Your task to perform on an android device: Go to Maps Image 0: 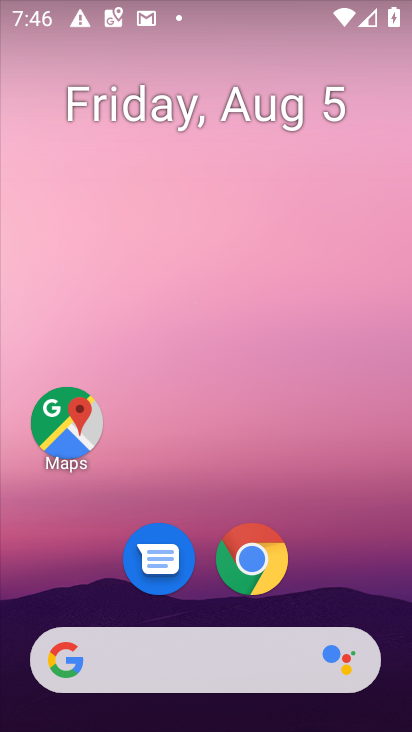
Step 0: click (65, 409)
Your task to perform on an android device: Go to Maps Image 1: 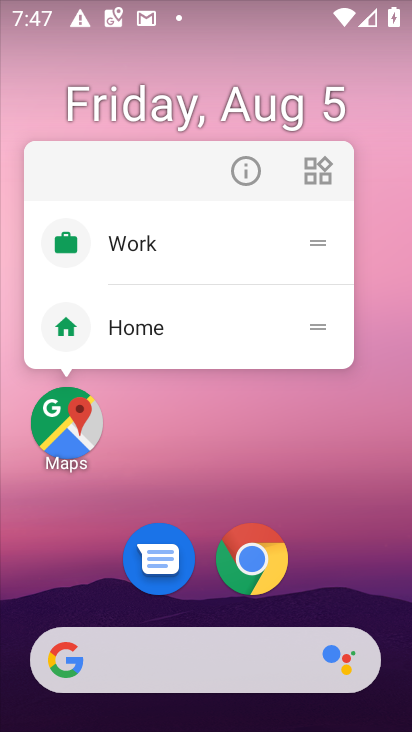
Step 1: click (75, 424)
Your task to perform on an android device: Go to Maps Image 2: 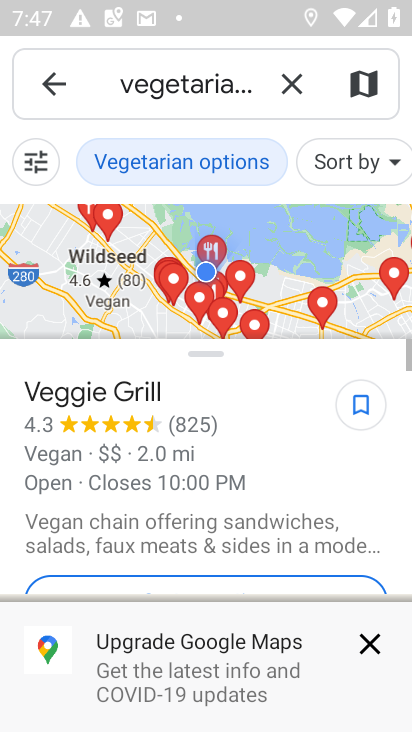
Step 2: click (62, 81)
Your task to perform on an android device: Go to Maps Image 3: 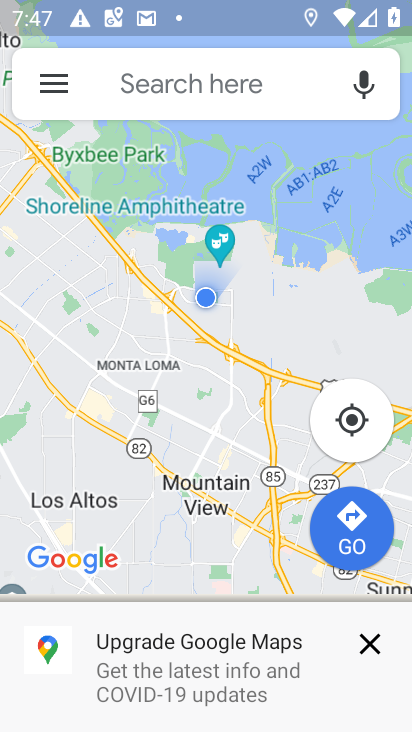
Step 3: click (373, 649)
Your task to perform on an android device: Go to Maps Image 4: 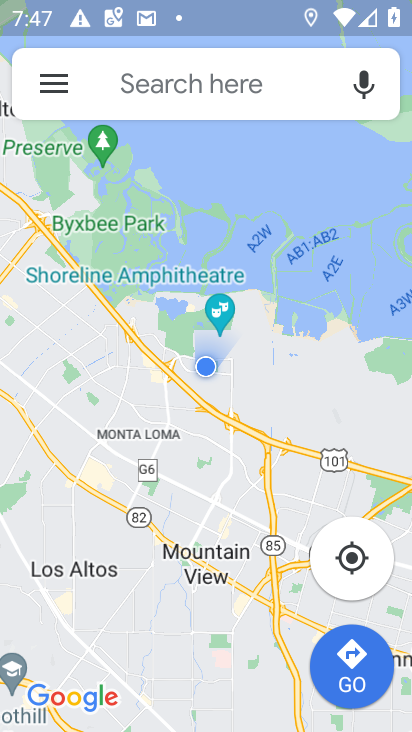
Step 4: task complete